Your task to perform on an android device: How much does the new iPad cost? Image 0: 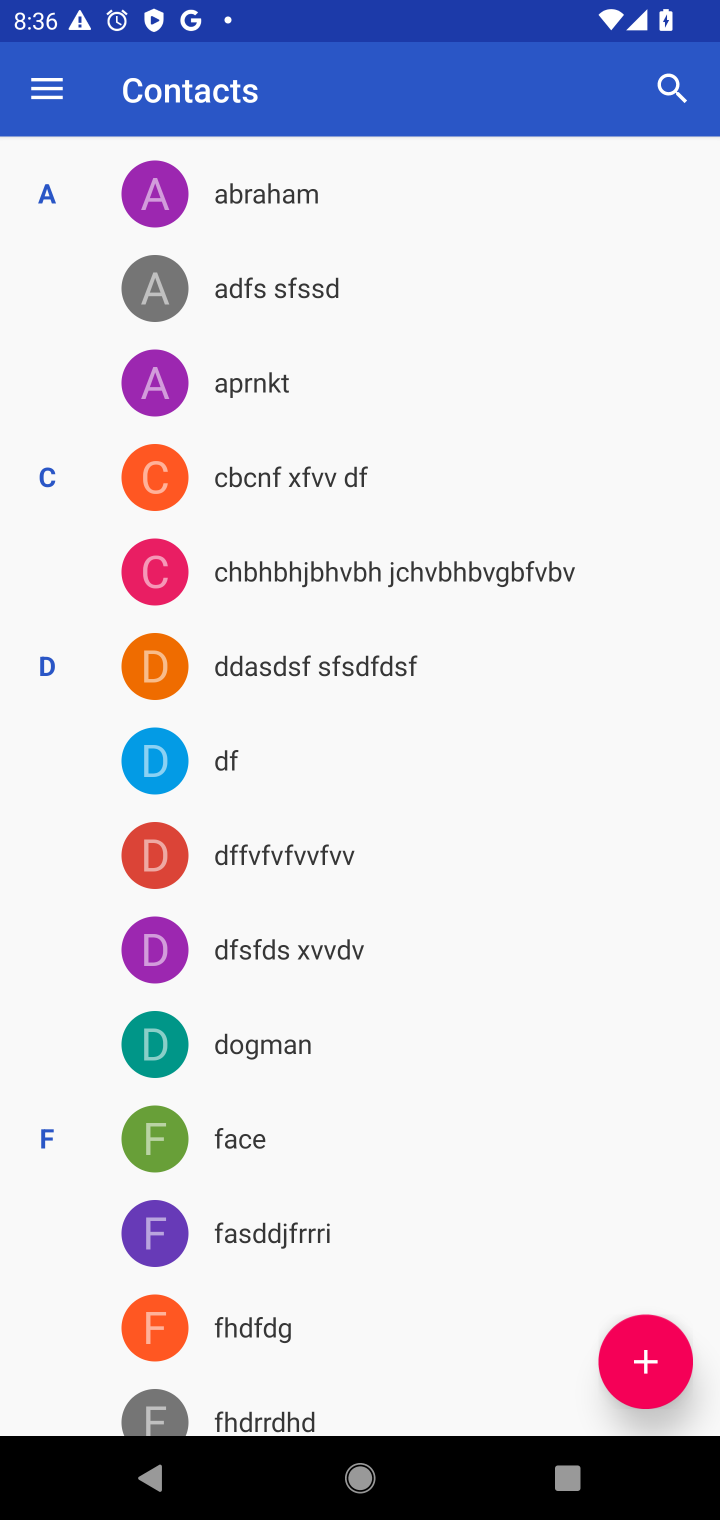
Step 0: press home button
Your task to perform on an android device: How much does the new iPad cost? Image 1: 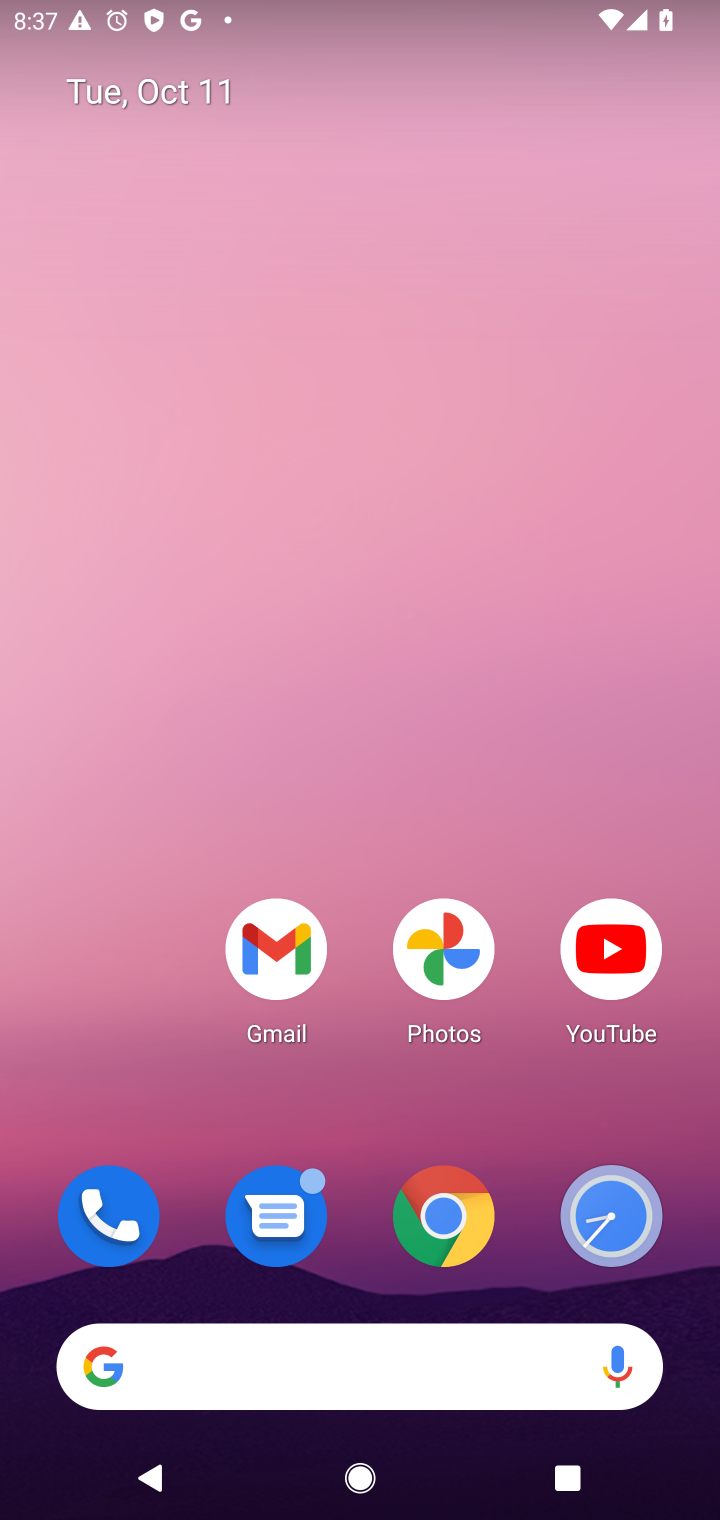
Step 1: click (437, 1220)
Your task to perform on an android device: How much does the new iPad cost? Image 2: 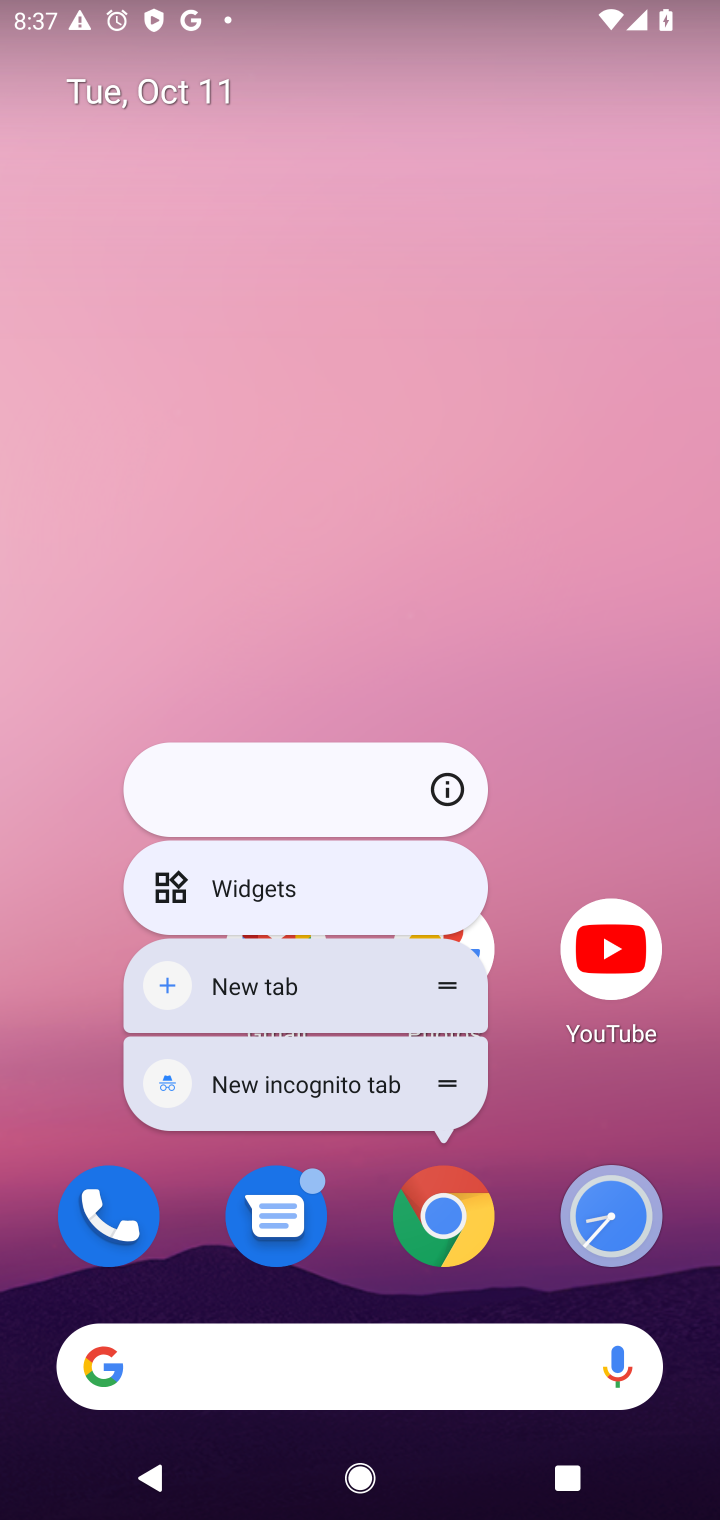
Step 2: click (445, 1234)
Your task to perform on an android device: How much does the new iPad cost? Image 3: 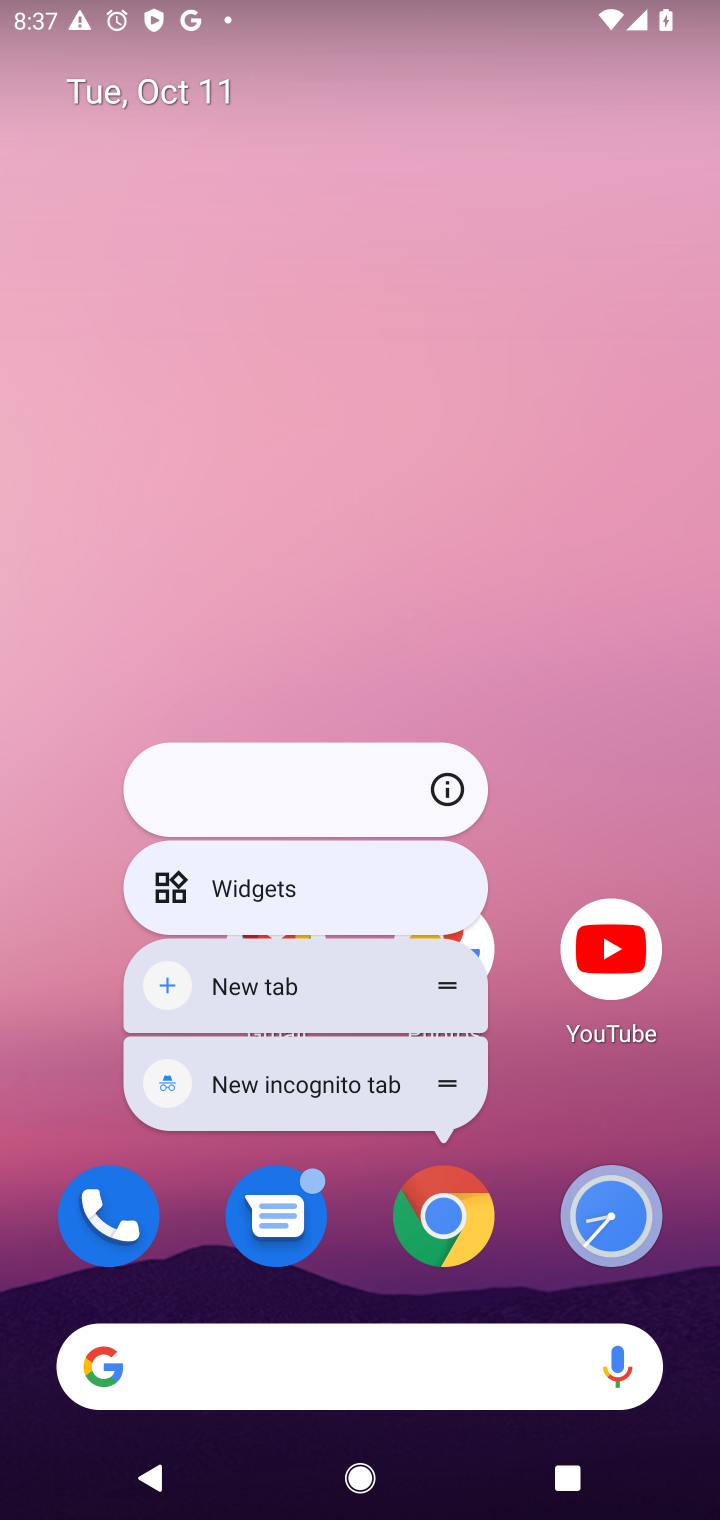
Step 3: click (421, 1226)
Your task to perform on an android device: How much does the new iPad cost? Image 4: 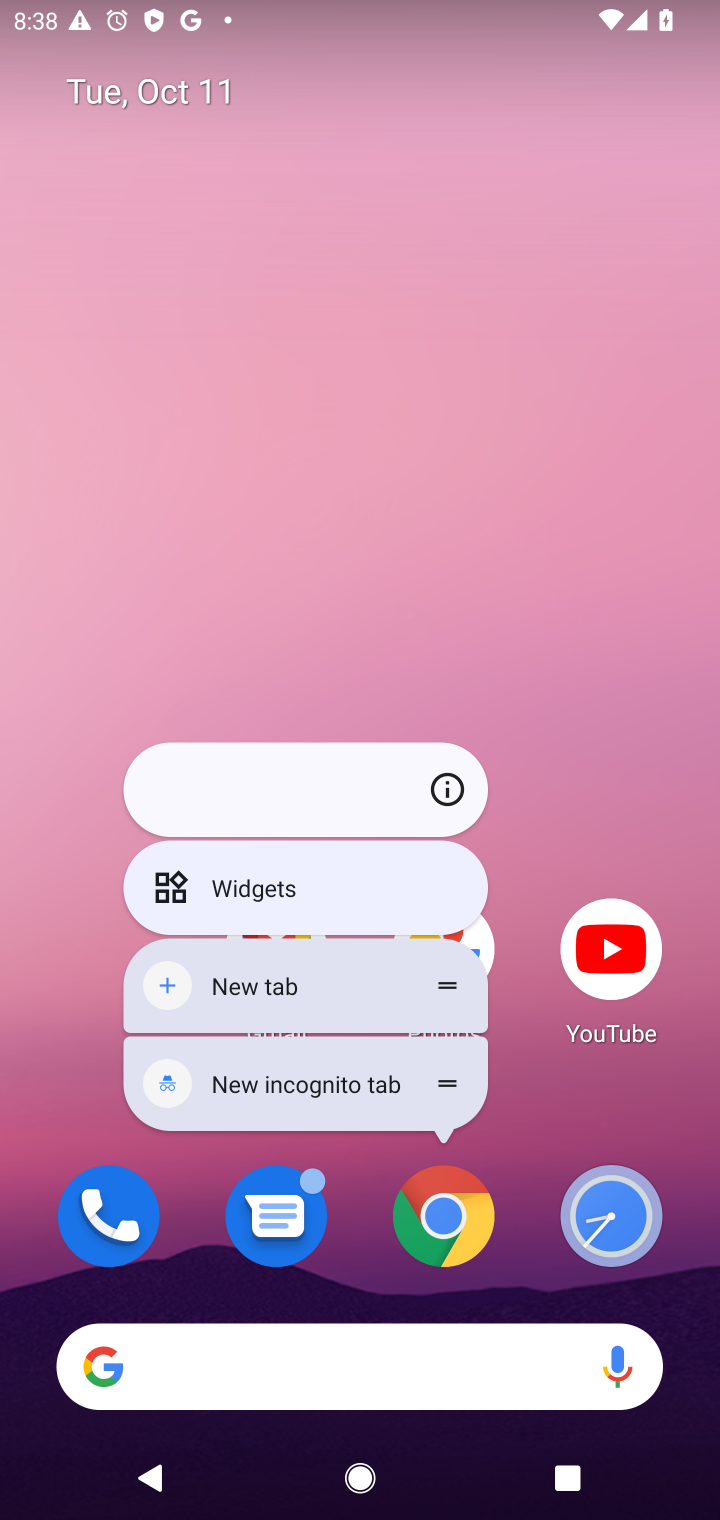
Step 4: click (436, 1245)
Your task to perform on an android device: How much does the new iPad cost? Image 5: 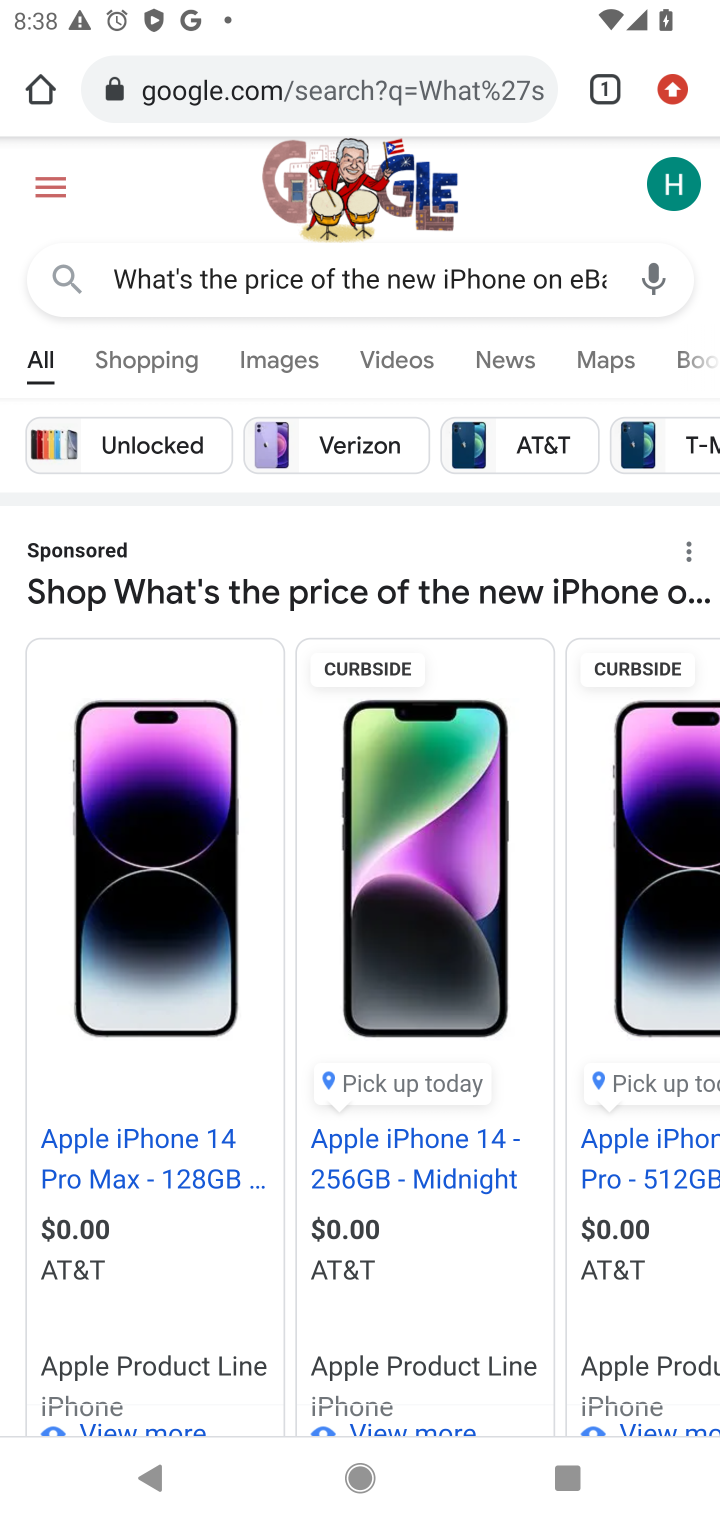
Step 5: task complete